Your task to perform on an android device: open chrome privacy settings Image 0: 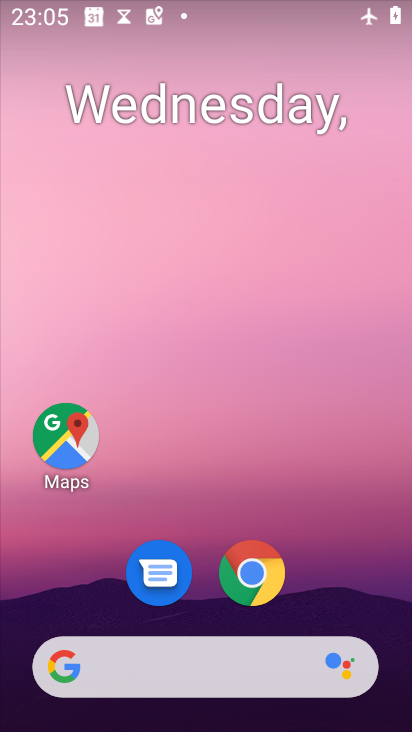
Step 0: click (244, 563)
Your task to perform on an android device: open chrome privacy settings Image 1: 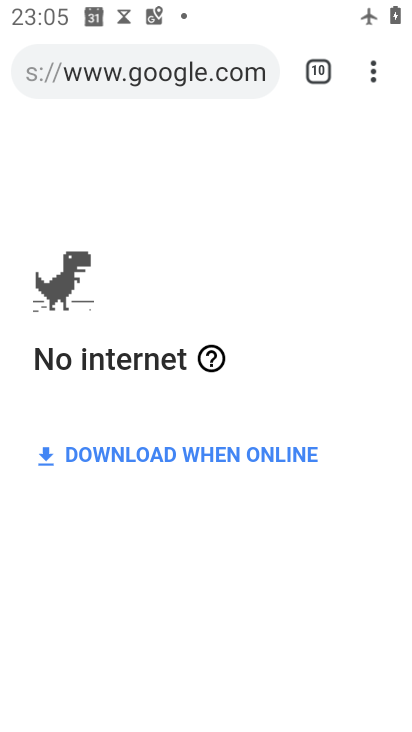
Step 1: click (373, 73)
Your task to perform on an android device: open chrome privacy settings Image 2: 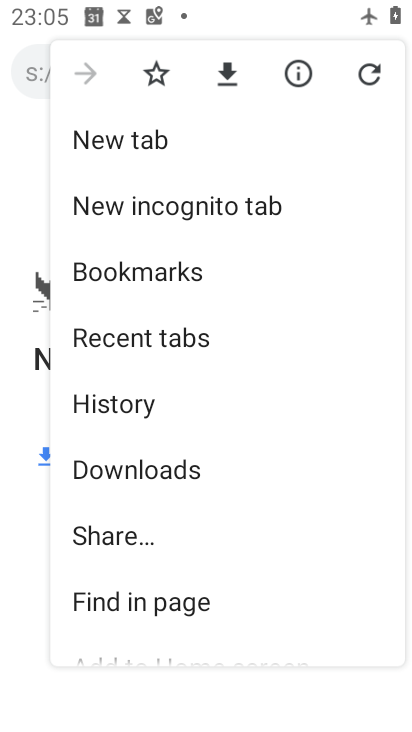
Step 2: drag from (164, 539) to (211, 206)
Your task to perform on an android device: open chrome privacy settings Image 3: 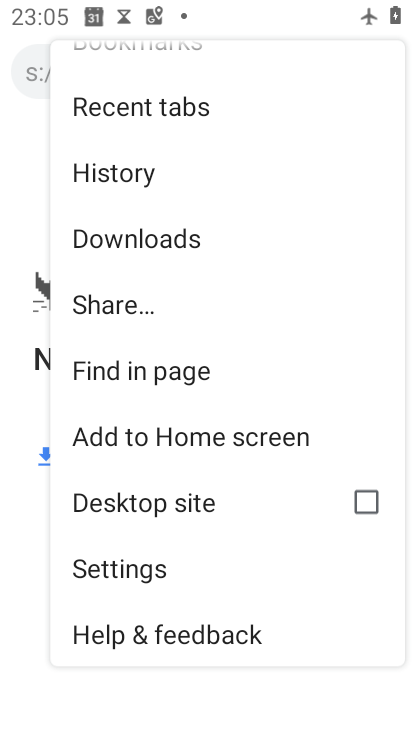
Step 3: click (162, 570)
Your task to perform on an android device: open chrome privacy settings Image 4: 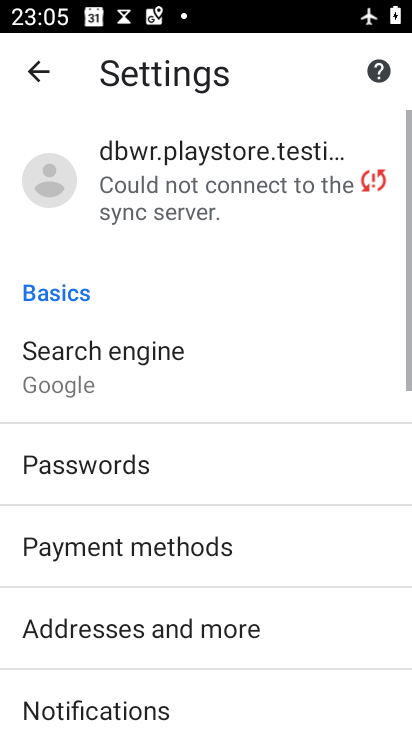
Step 4: drag from (194, 613) to (219, 333)
Your task to perform on an android device: open chrome privacy settings Image 5: 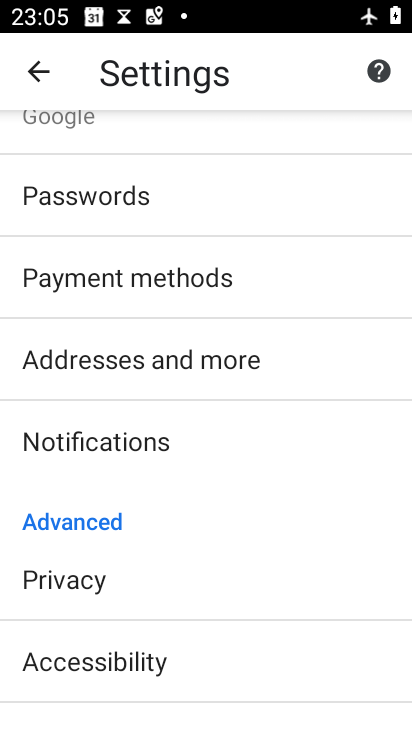
Step 5: click (125, 589)
Your task to perform on an android device: open chrome privacy settings Image 6: 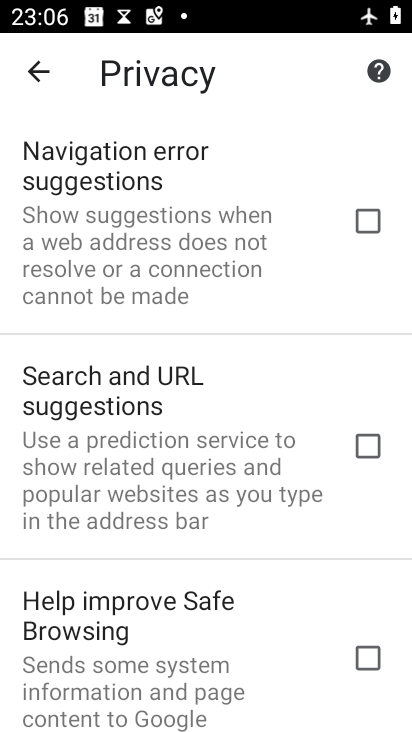
Step 6: task complete